Your task to perform on an android device: turn off location Image 0: 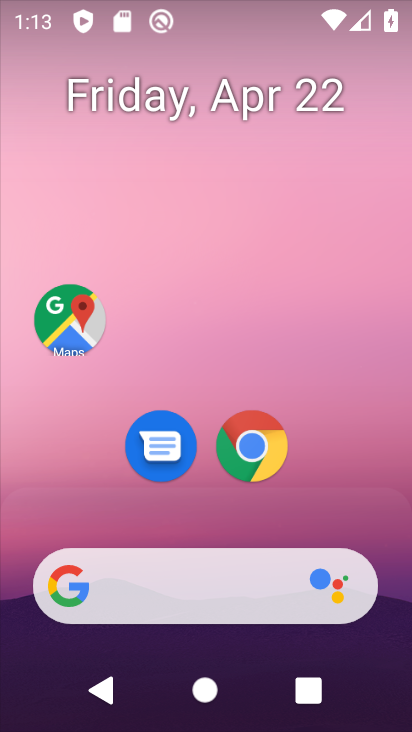
Step 0: drag from (320, 8) to (249, 647)
Your task to perform on an android device: turn off location Image 1: 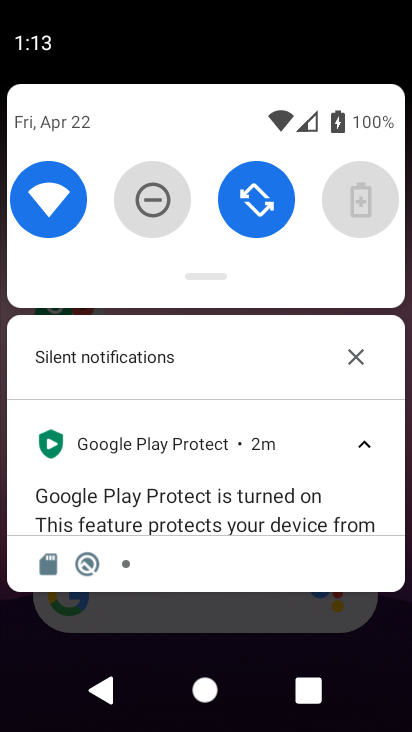
Step 1: drag from (235, 276) to (224, 611)
Your task to perform on an android device: turn off location Image 2: 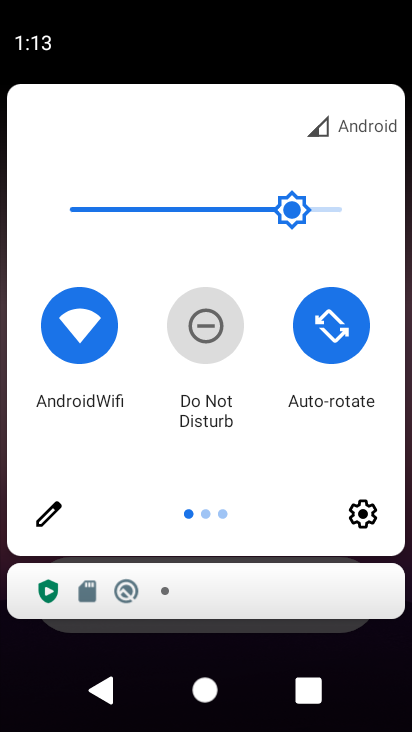
Step 2: click (361, 511)
Your task to perform on an android device: turn off location Image 3: 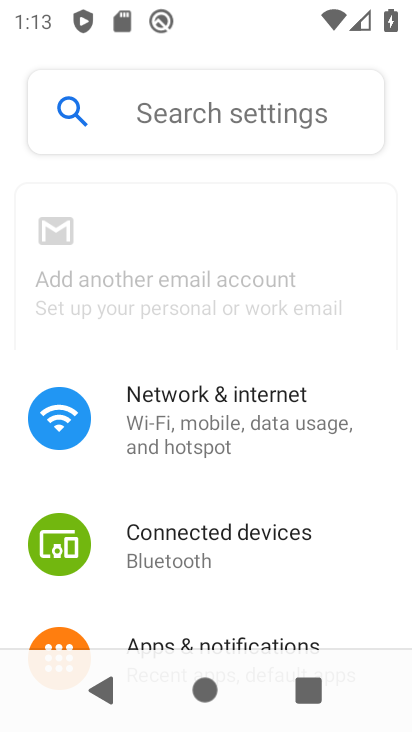
Step 3: drag from (238, 500) to (188, 22)
Your task to perform on an android device: turn off location Image 4: 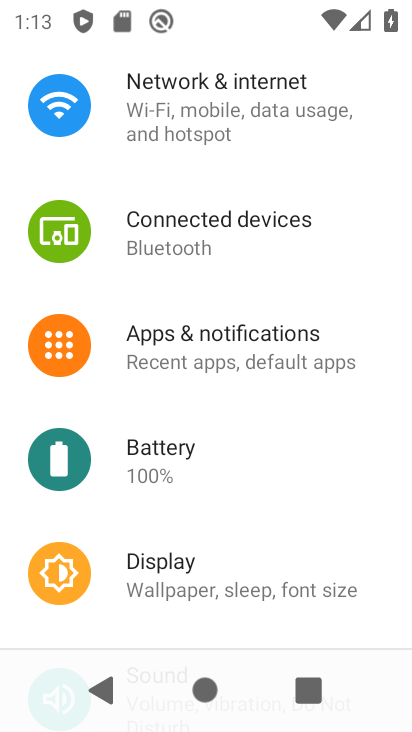
Step 4: drag from (222, 620) to (208, 104)
Your task to perform on an android device: turn off location Image 5: 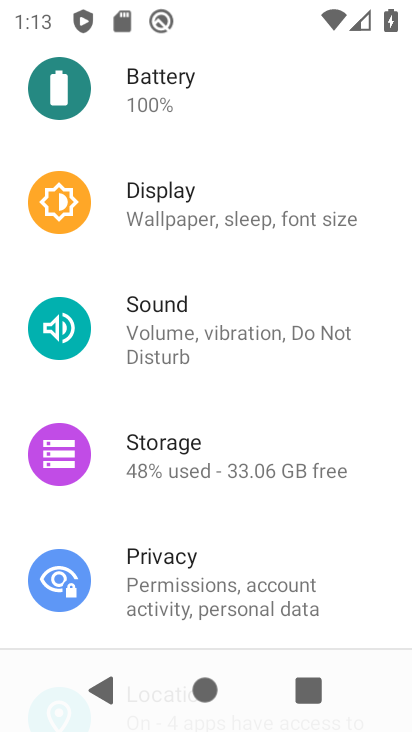
Step 5: drag from (196, 611) to (177, 248)
Your task to perform on an android device: turn off location Image 6: 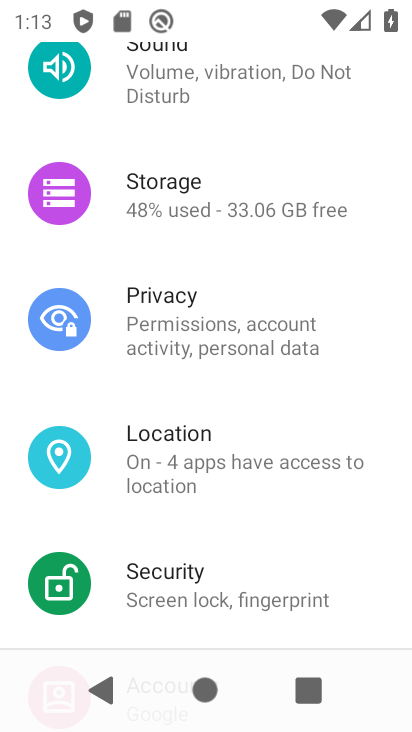
Step 6: click (140, 454)
Your task to perform on an android device: turn off location Image 7: 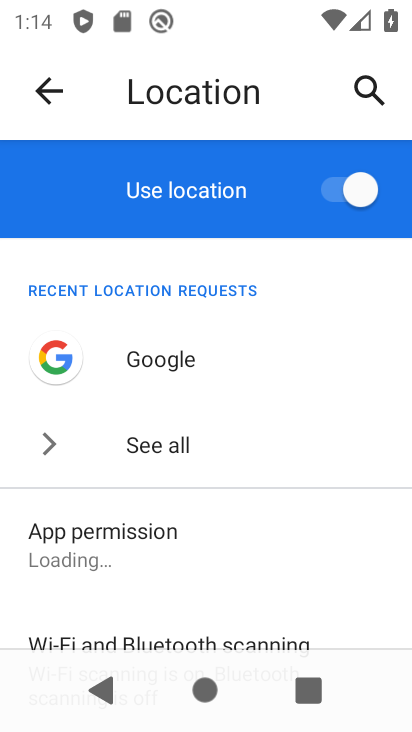
Step 7: click (344, 188)
Your task to perform on an android device: turn off location Image 8: 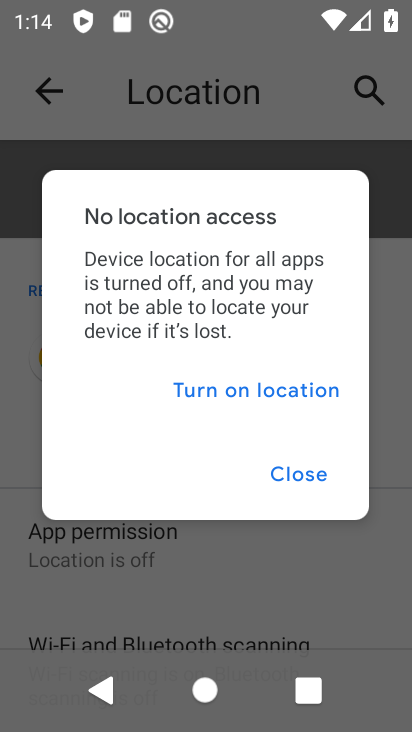
Step 8: task complete